Your task to perform on an android device: Open the stopwatch Image 0: 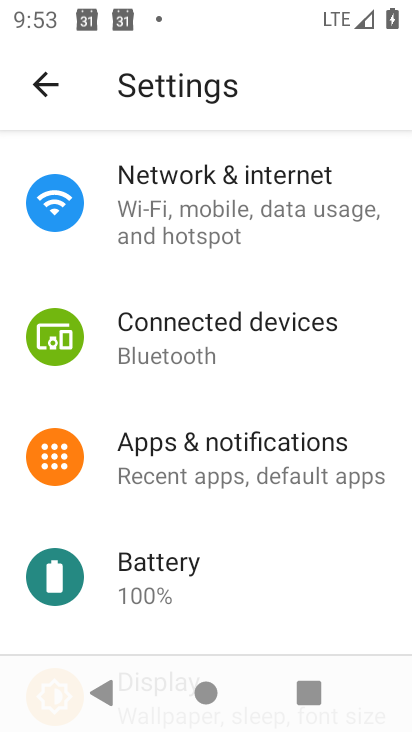
Step 0: press home button
Your task to perform on an android device: Open the stopwatch Image 1: 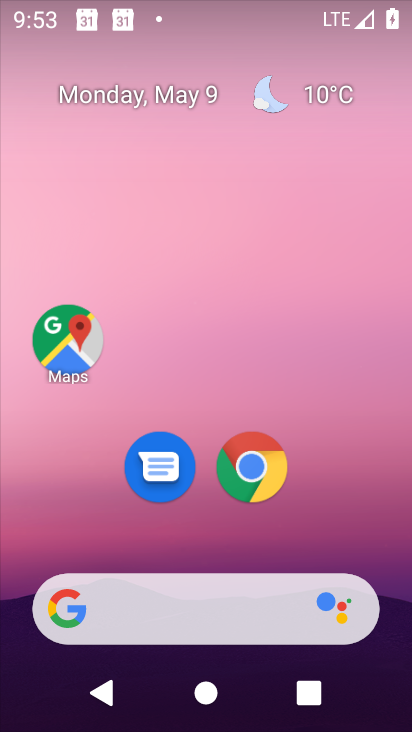
Step 1: drag from (381, 530) to (325, 19)
Your task to perform on an android device: Open the stopwatch Image 2: 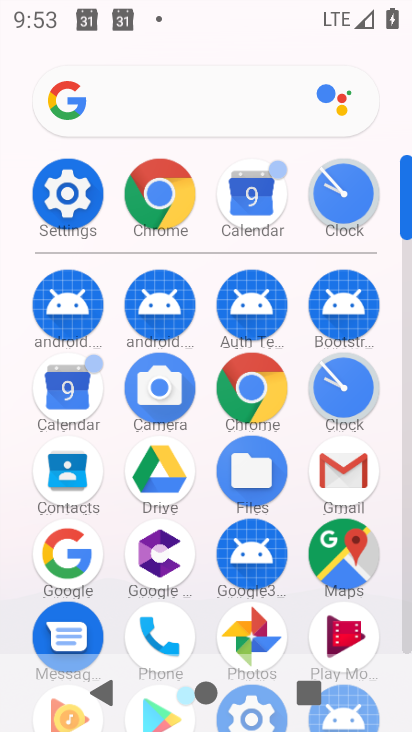
Step 2: click (333, 206)
Your task to perform on an android device: Open the stopwatch Image 3: 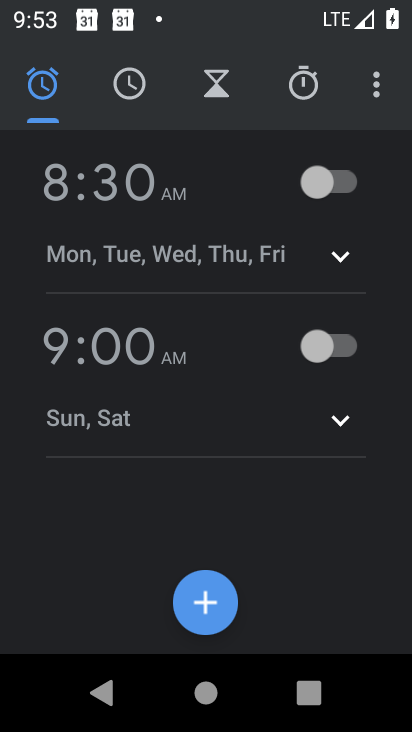
Step 3: click (307, 83)
Your task to perform on an android device: Open the stopwatch Image 4: 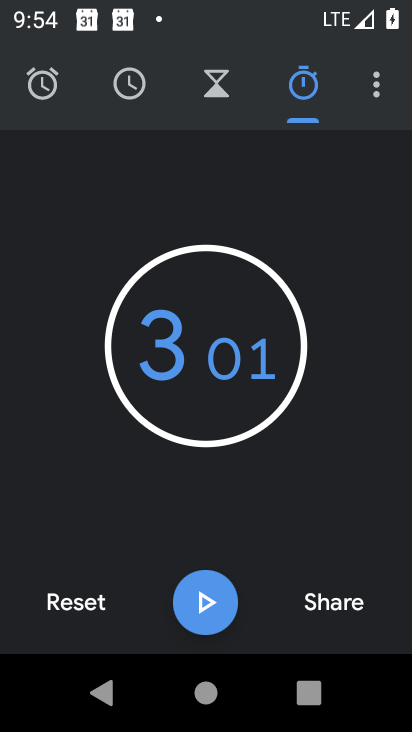
Step 4: click (93, 608)
Your task to perform on an android device: Open the stopwatch Image 5: 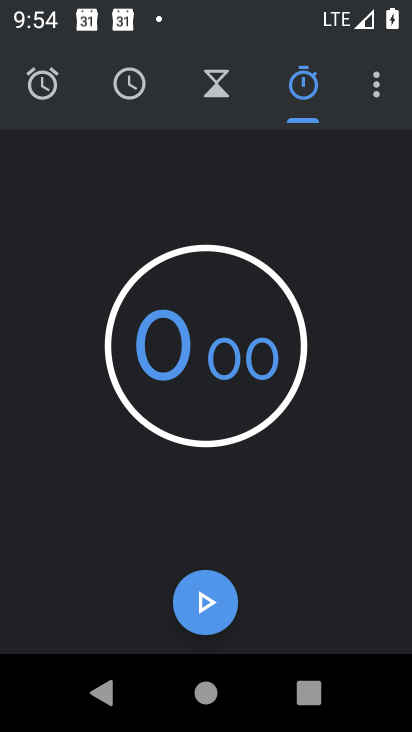
Step 5: task complete